Your task to perform on an android device: Open calendar and show me the second week of next month Image 0: 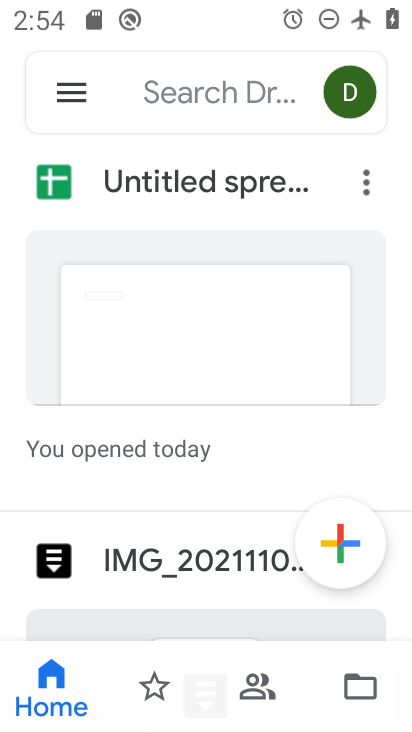
Step 0: press home button
Your task to perform on an android device: Open calendar and show me the second week of next month Image 1: 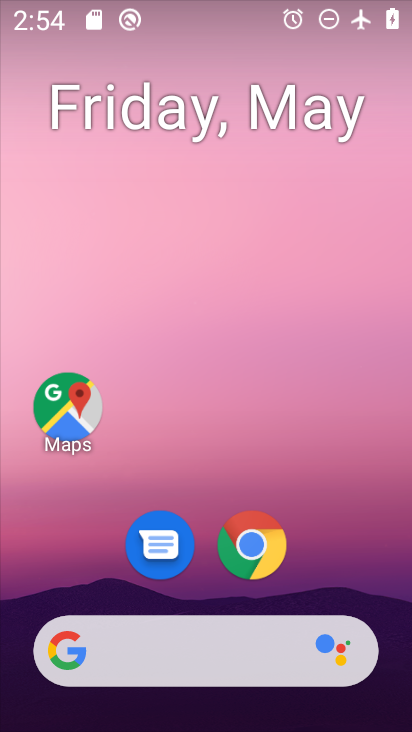
Step 1: drag from (362, 572) to (357, 138)
Your task to perform on an android device: Open calendar and show me the second week of next month Image 2: 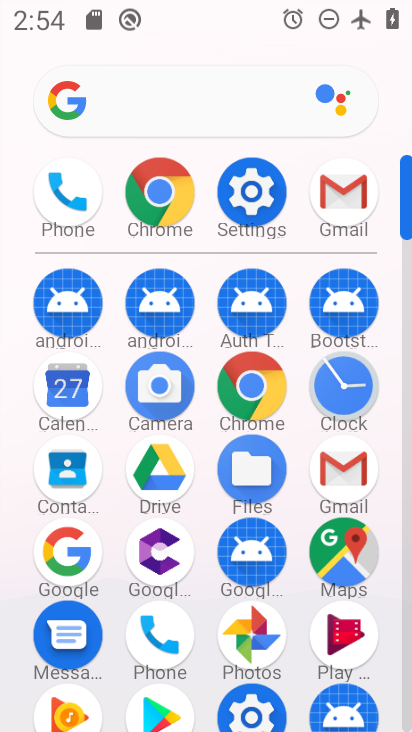
Step 2: click (74, 365)
Your task to perform on an android device: Open calendar and show me the second week of next month Image 3: 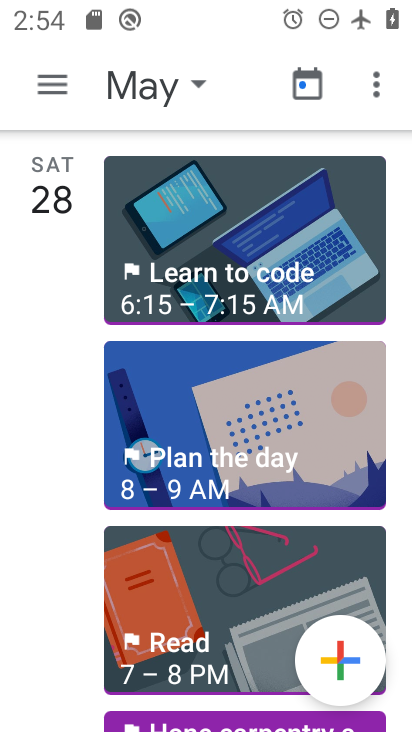
Step 3: click (50, 91)
Your task to perform on an android device: Open calendar and show me the second week of next month Image 4: 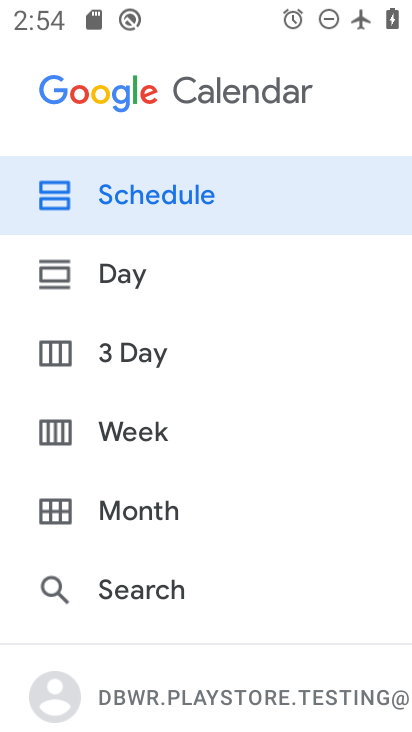
Step 4: click (153, 435)
Your task to perform on an android device: Open calendar and show me the second week of next month Image 5: 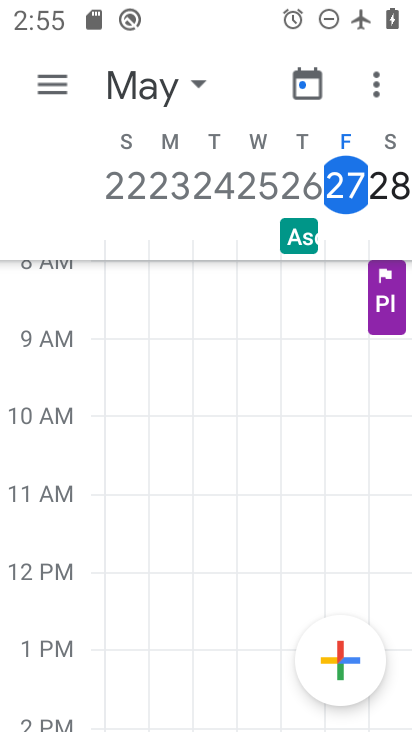
Step 5: drag from (374, 423) to (99, 442)
Your task to perform on an android device: Open calendar and show me the second week of next month Image 6: 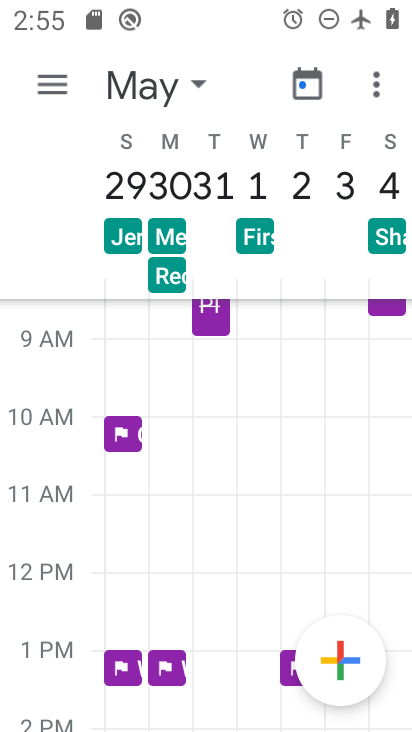
Step 6: click (49, 84)
Your task to perform on an android device: Open calendar and show me the second week of next month Image 7: 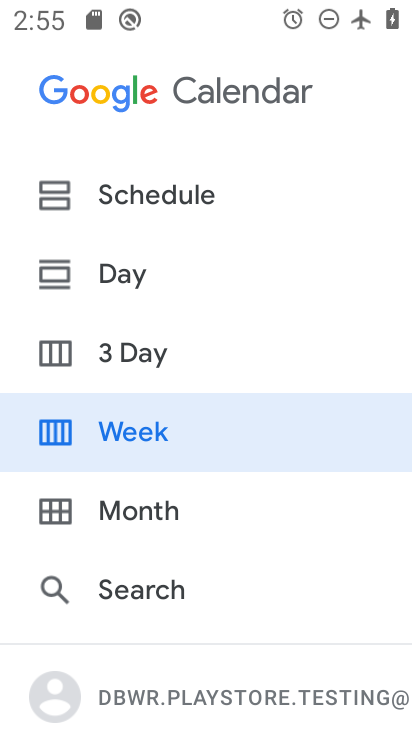
Step 7: click (156, 496)
Your task to perform on an android device: Open calendar and show me the second week of next month Image 8: 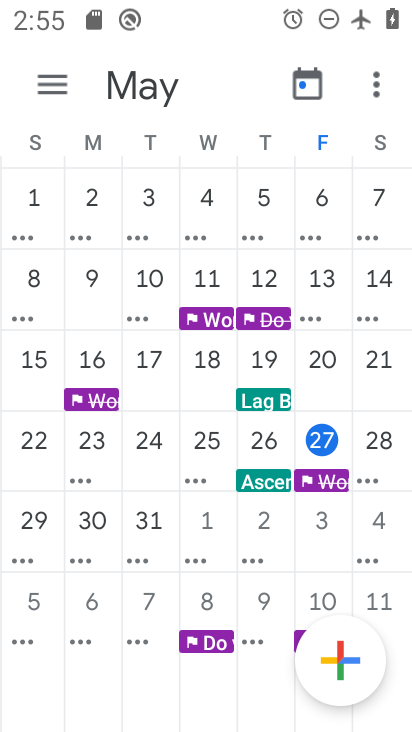
Step 8: task complete